Your task to perform on an android device: allow cookies in the chrome app Image 0: 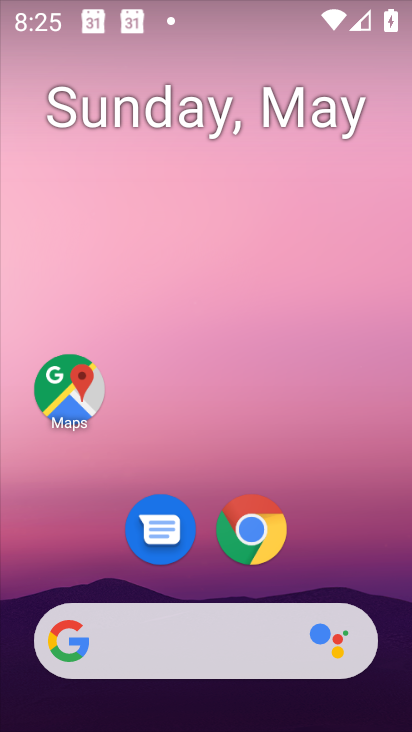
Step 0: click (266, 520)
Your task to perform on an android device: allow cookies in the chrome app Image 1: 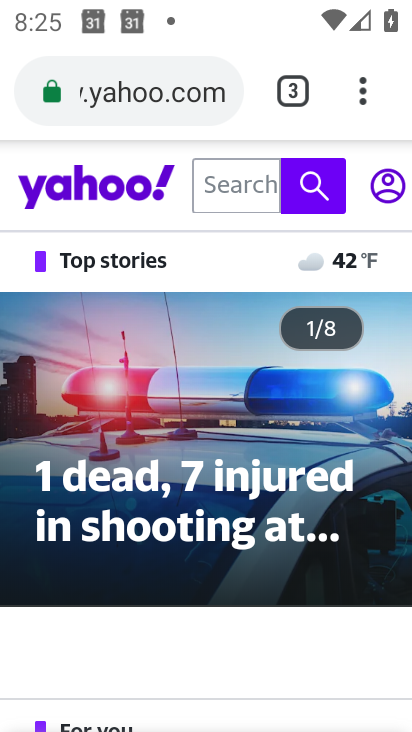
Step 1: click (361, 86)
Your task to perform on an android device: allow cookies in the chrome app Image 2: 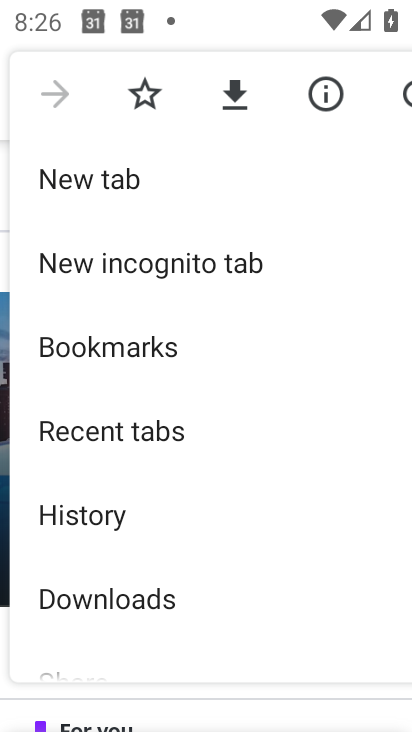
Step 2: drag from (191, 640) to (191, 393)
Your task to perform on an android device: allow cookies in the chrome app Image 3: 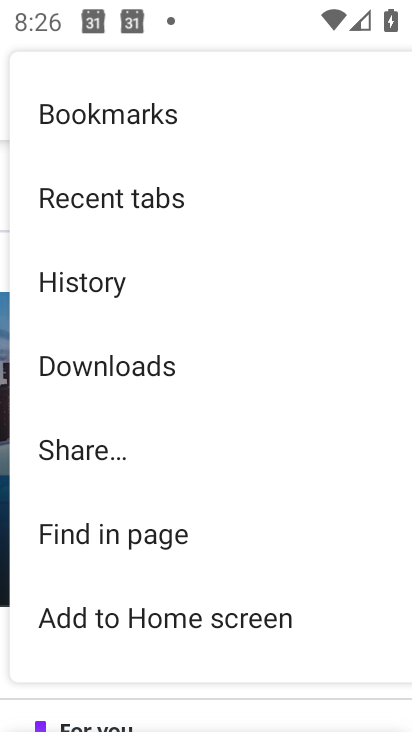
Step 3: drag from (224, 543) to (214, 300)
Your task to perform on an android device: allow cookies in the chrome app Image 4: 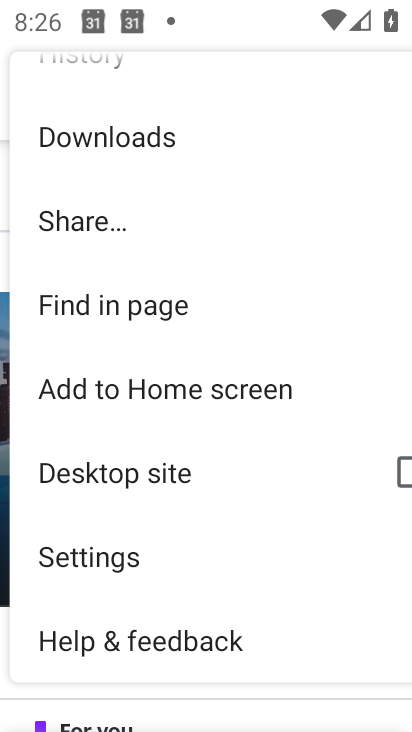
Step 4: click (191, 560)
Your task to perform on an android device: allow cookies in the chrome app Image 5: 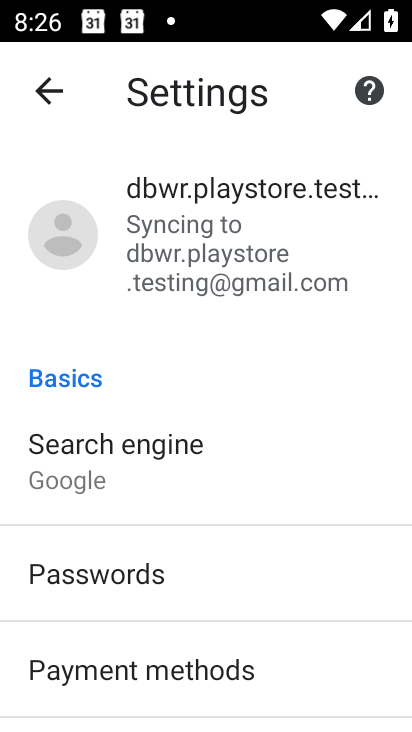
Step 5: task complete